Your task to perform on an android device: move a message to another label in the gmail app Image 0: 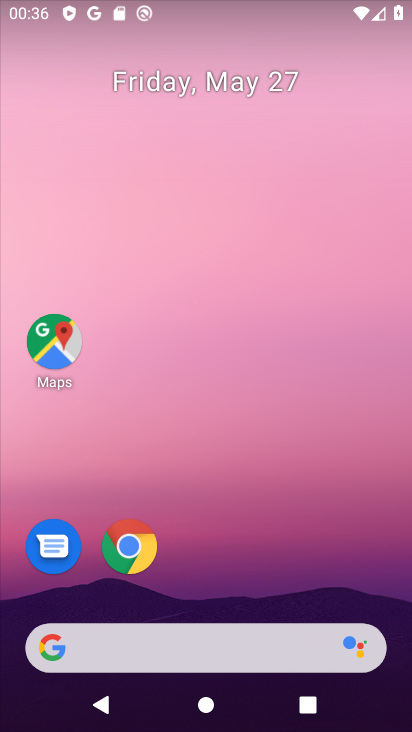
Step 0: drag from (379, 587) to (349, 65)
Your task to perform on an android device: move a message to another label in the gmail app Image 1: 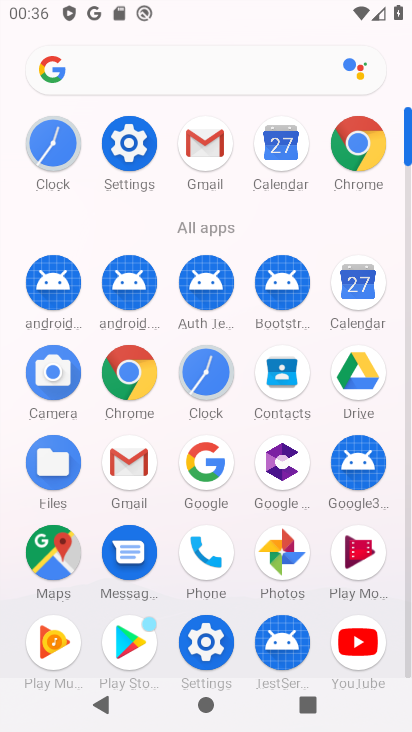
Step 1: click (130, 477)
Your task to perform on an android device: move a message to another label in the gmail app Image 2: 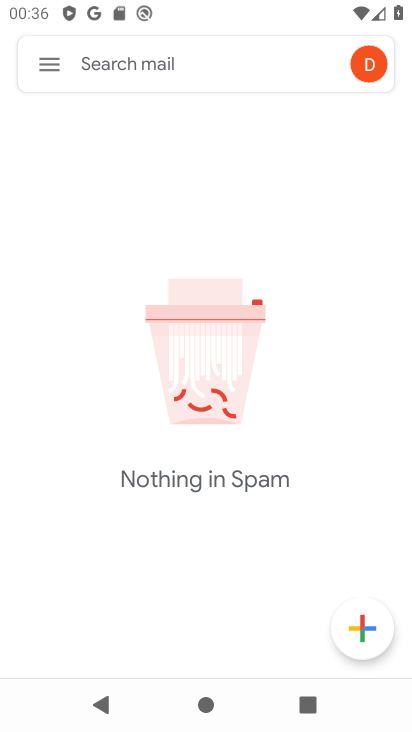
Step 2: click (38, 60)
Your task to perform on an android device: move a message to another label in the gmail app Image 3: 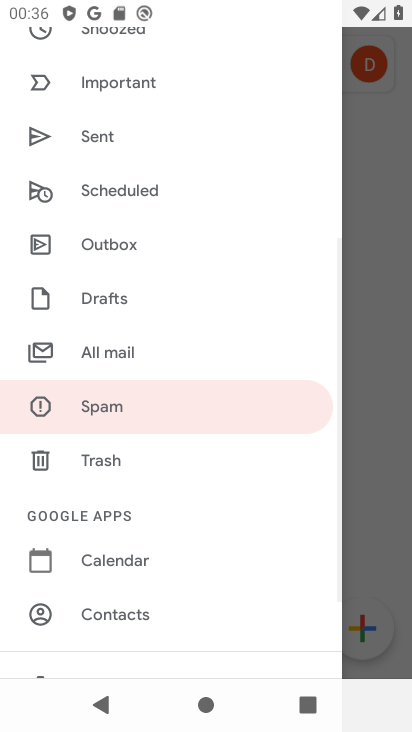
Step 3: drag from (210, 558) to (238, 196)
Your task to perform on an android device: move a message to another label in the gmail app Image 4: 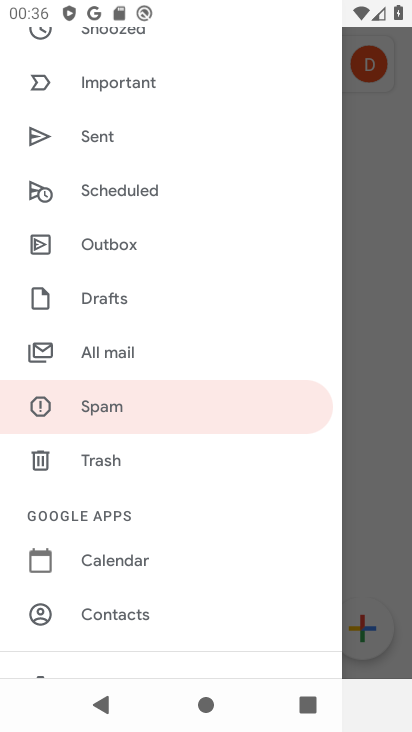
Step 4: drag from (200, 571) to (218, 311)
Your task to perform on an android device: move a message to another label in the gmail app Image 5: 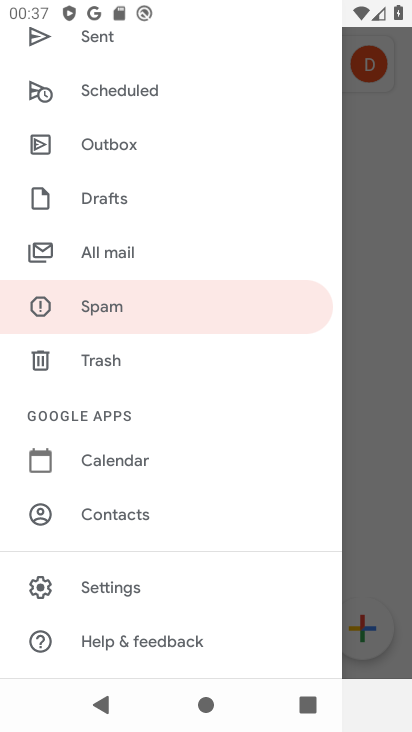
Step 5: click (151, 252)
Your task to perform on an android device: move a message to another label in the gmail app Image 6: 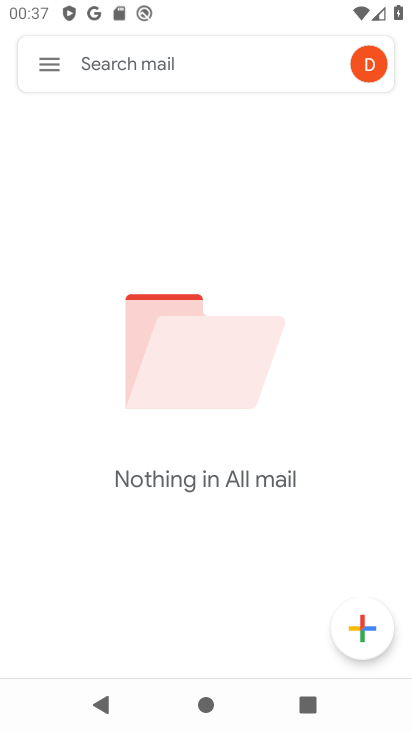
Step 6: task complete